Your task to perform on an android device: turn on location history Image 0: 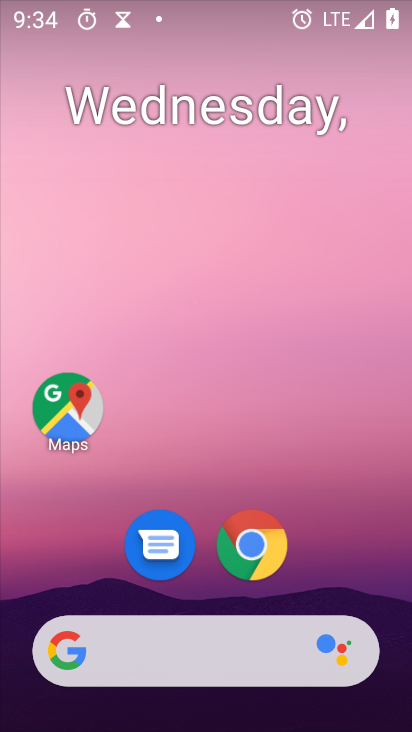
Step 0: press home button
Your task to perform on an android device: turn on location history Image 1: 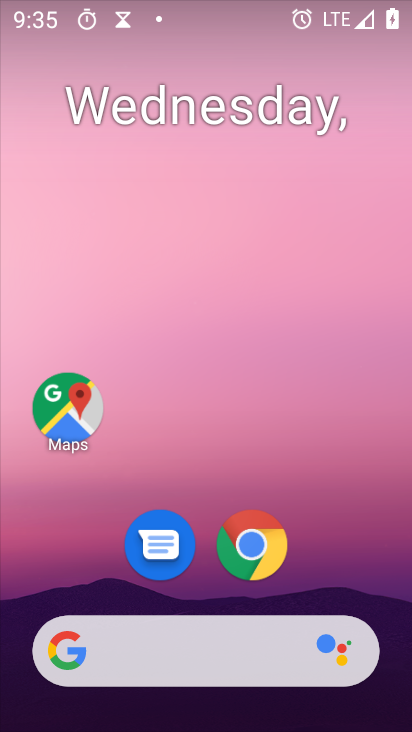
Step 1: click (73, 431)
Your task to perform on an android device: turn on location history Image 2: 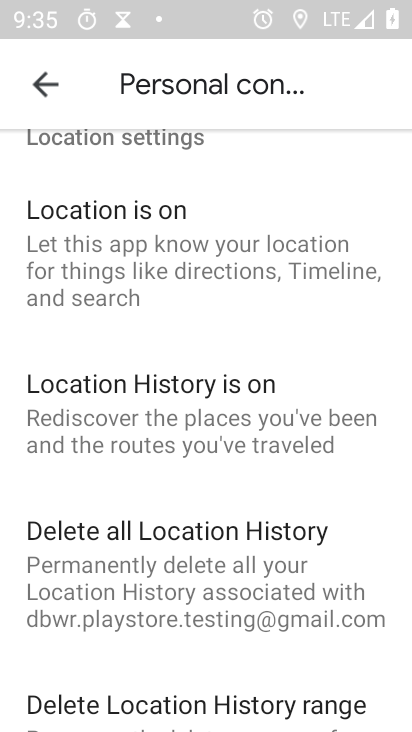
Step 2: click (130, 419)
Your task to perform on an android device: turn on location history Image 3: 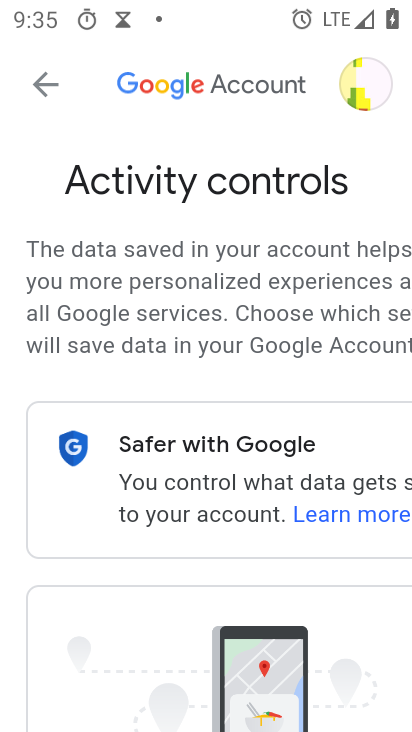
Step 3: task complete